Your task to perform on an android device: Add jbl charge 4 to the cart on costco Image 0: 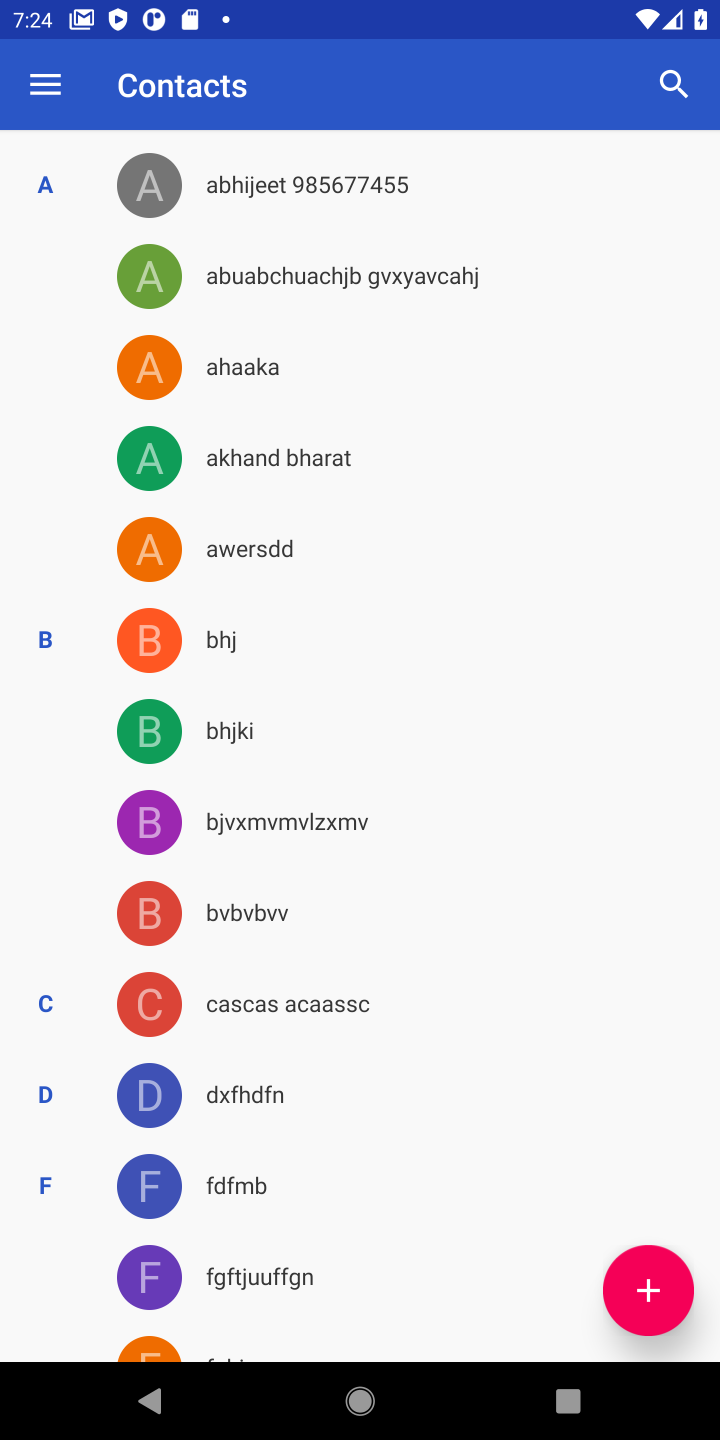
Step 0: press home button
Your task to perform on an android device: Add jbl charge 4 to the cart on costco Image 1: 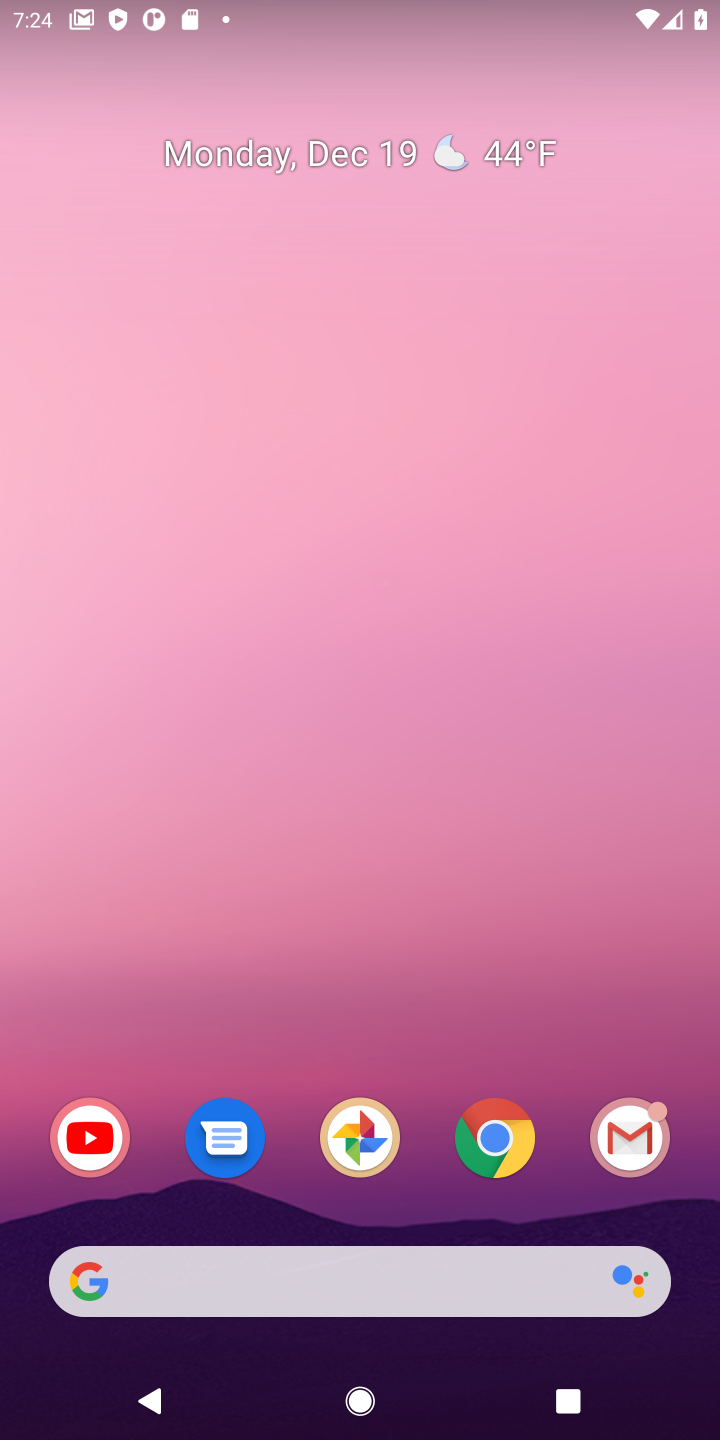
Step 1: click (507, 1142)
Your task to perform on an android device: Add jbl charge 4 to the cart on costco Image 2: 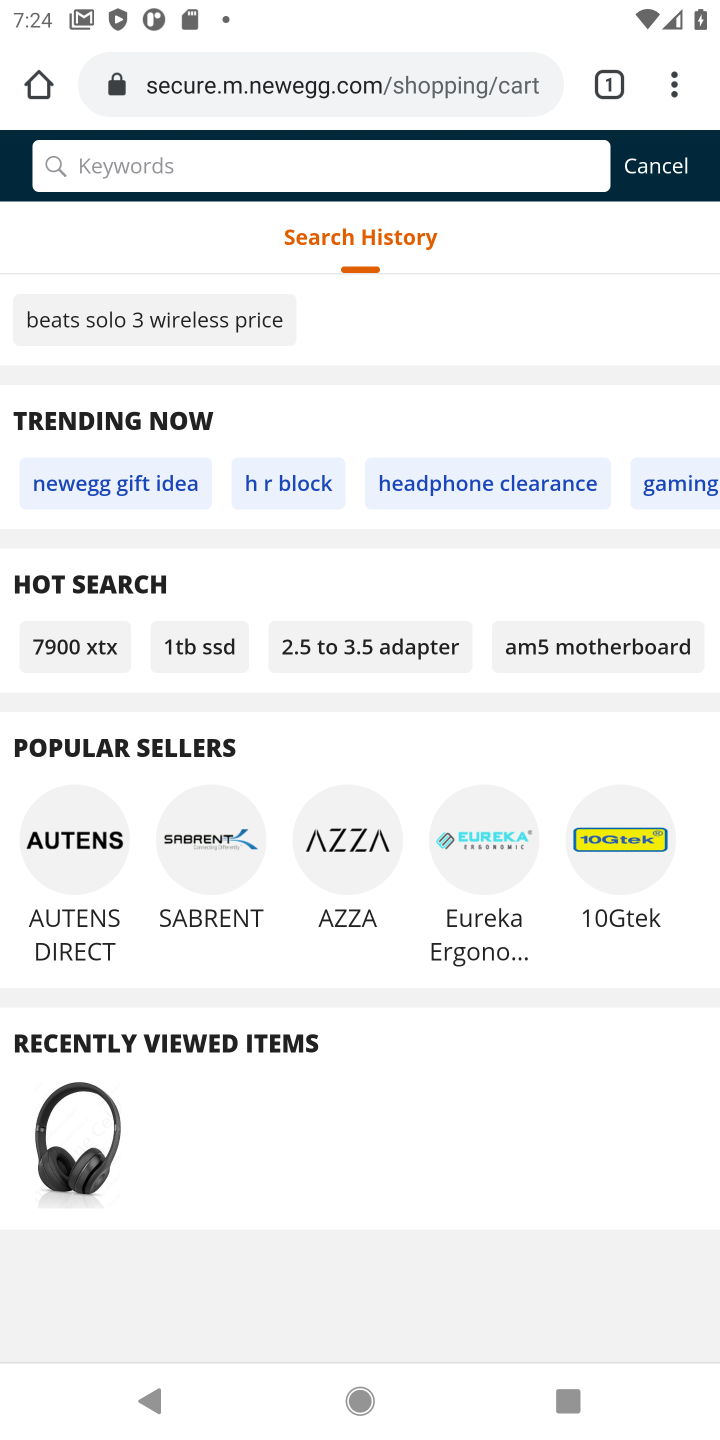
Step 2: click (353, 90)
Your task to perform on an android device: Add jbl charge 4 to the cart on costco Image 3: 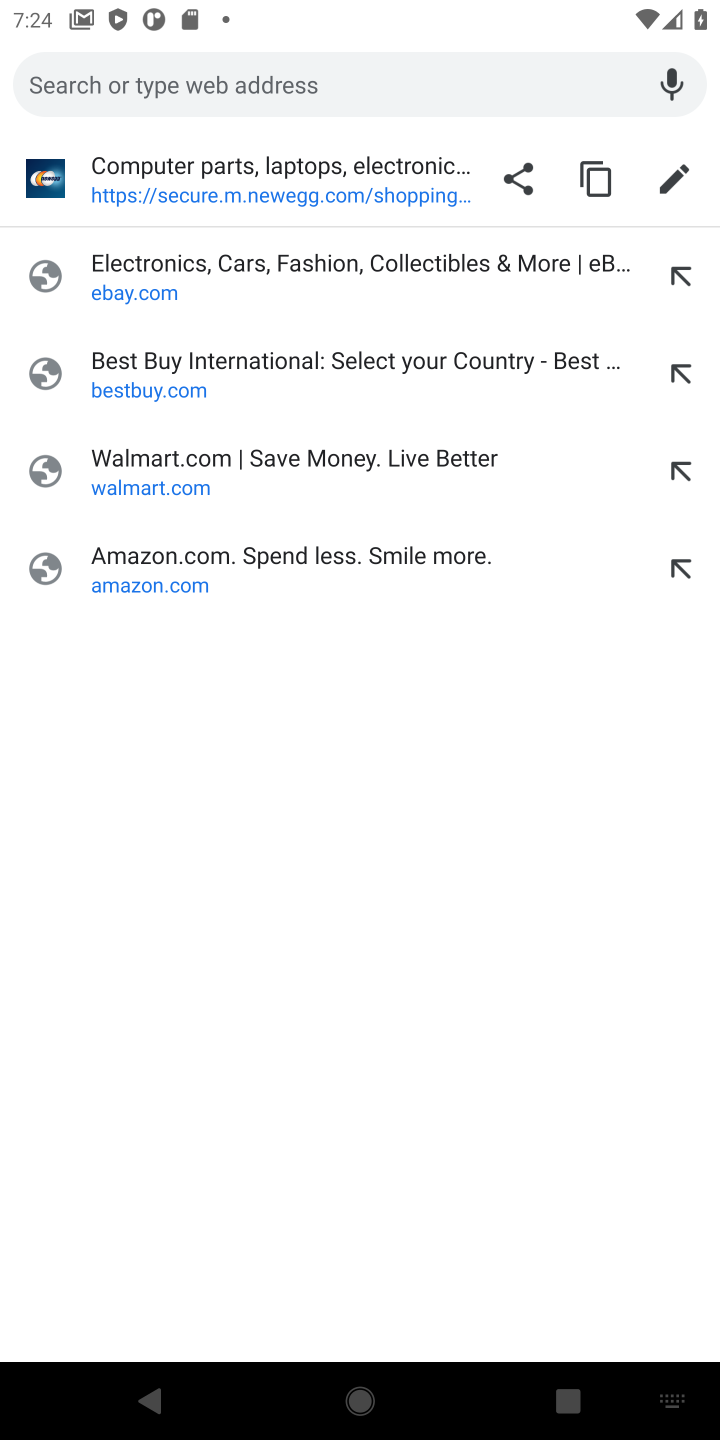
Step 3: type "COSTCO"
Your task to perform on an android device: Add jbl charge 4 to the cart on costco Image 4: 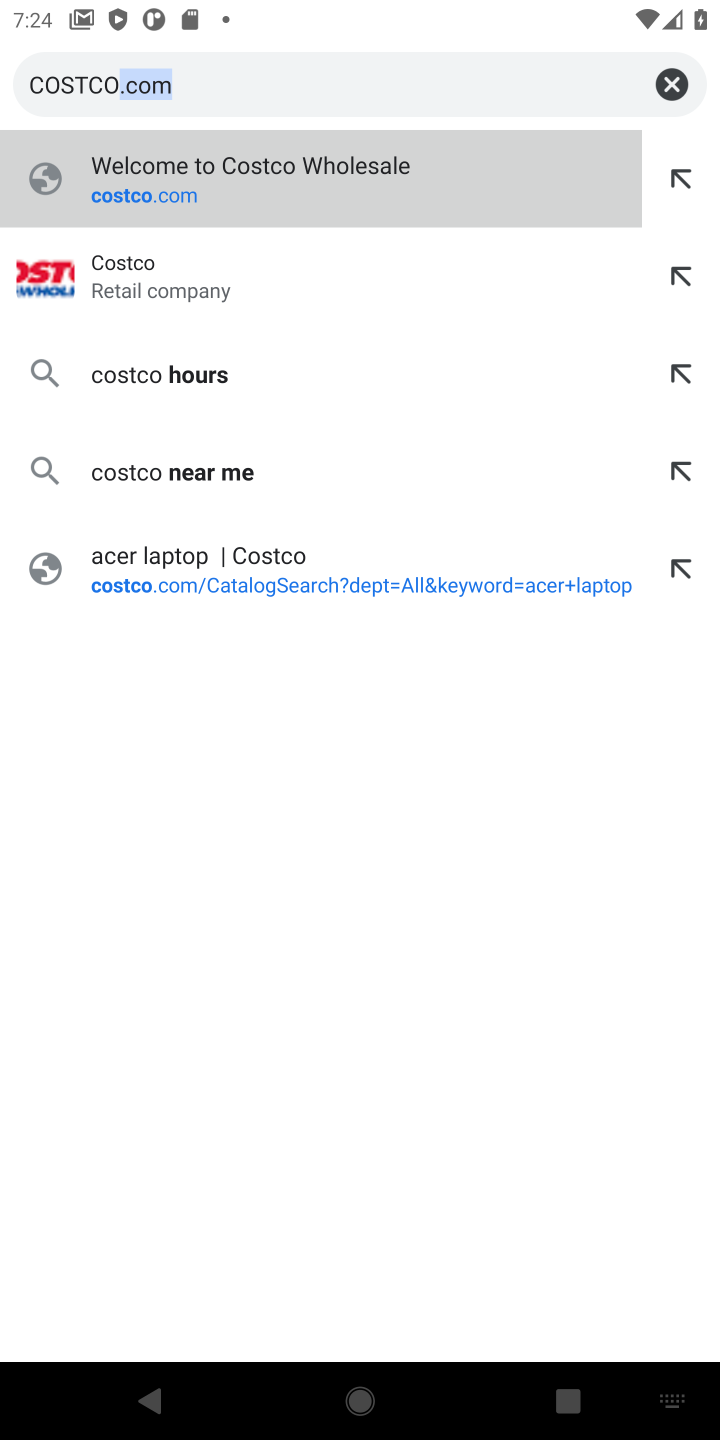
Step 4: click (287, 180)
Your task to perform on an android device: Add jbl charge 4 to the cart on costco Image 5: 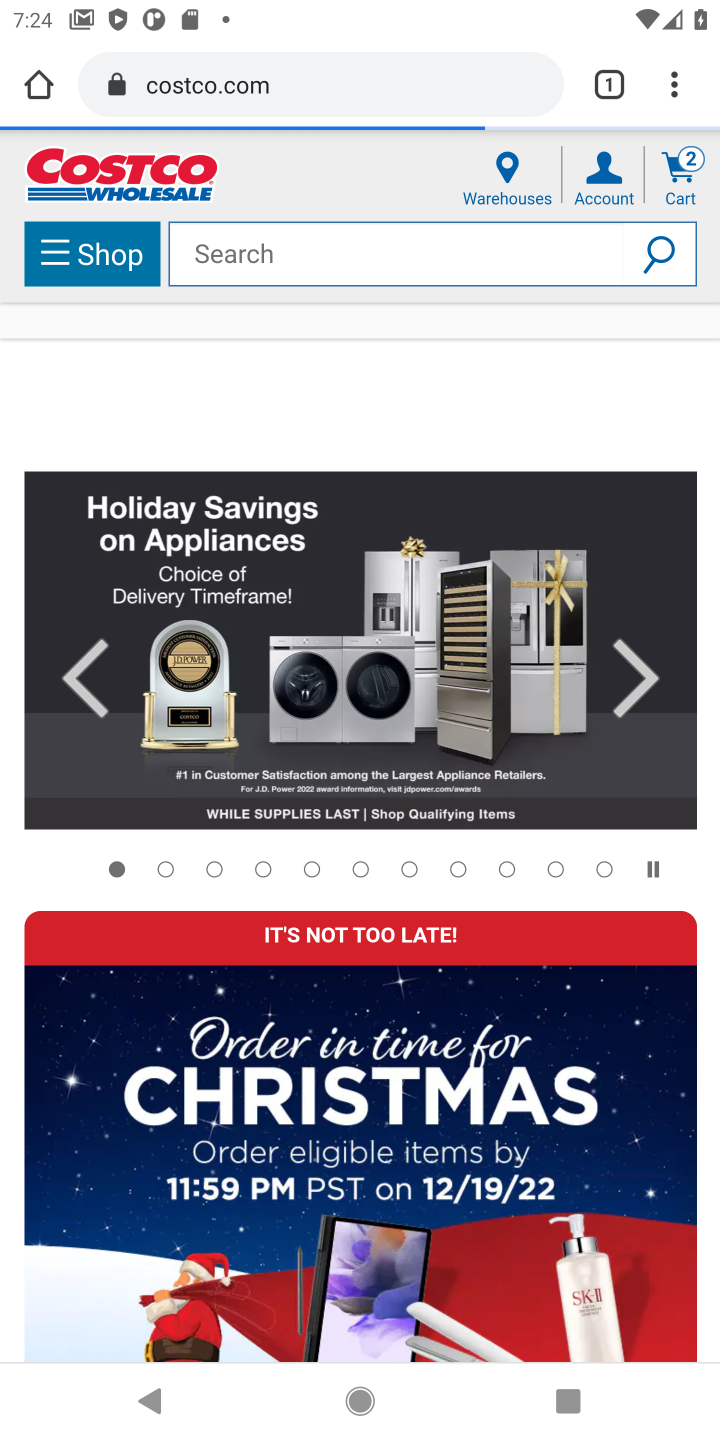
Step 5: click (533, 247)
Your task to perform on an android device: Add jbl charge 4 to the cart on costco Image 6: 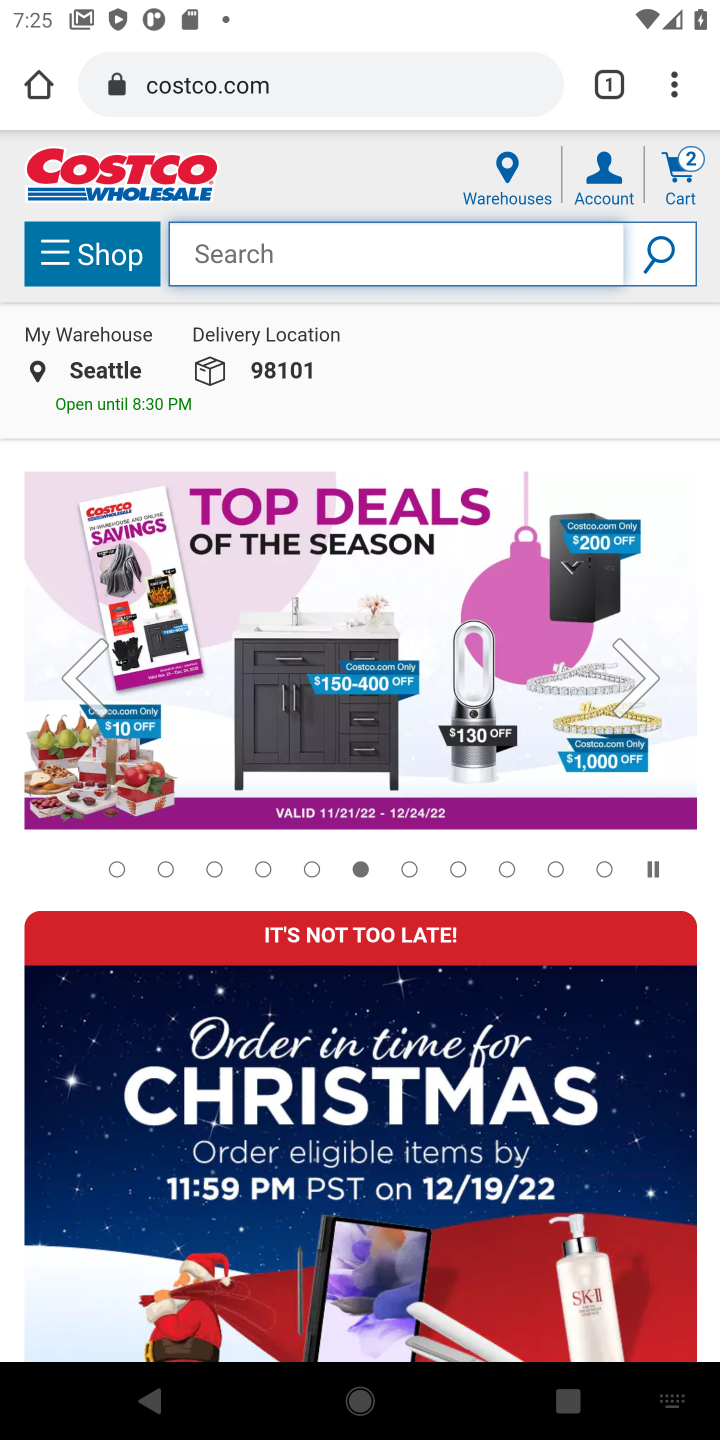
Step 6: type "JBL CHARGE 4"
Your task to perform on an android device: Add jbl charge 4 to the cart on costco Image 7: 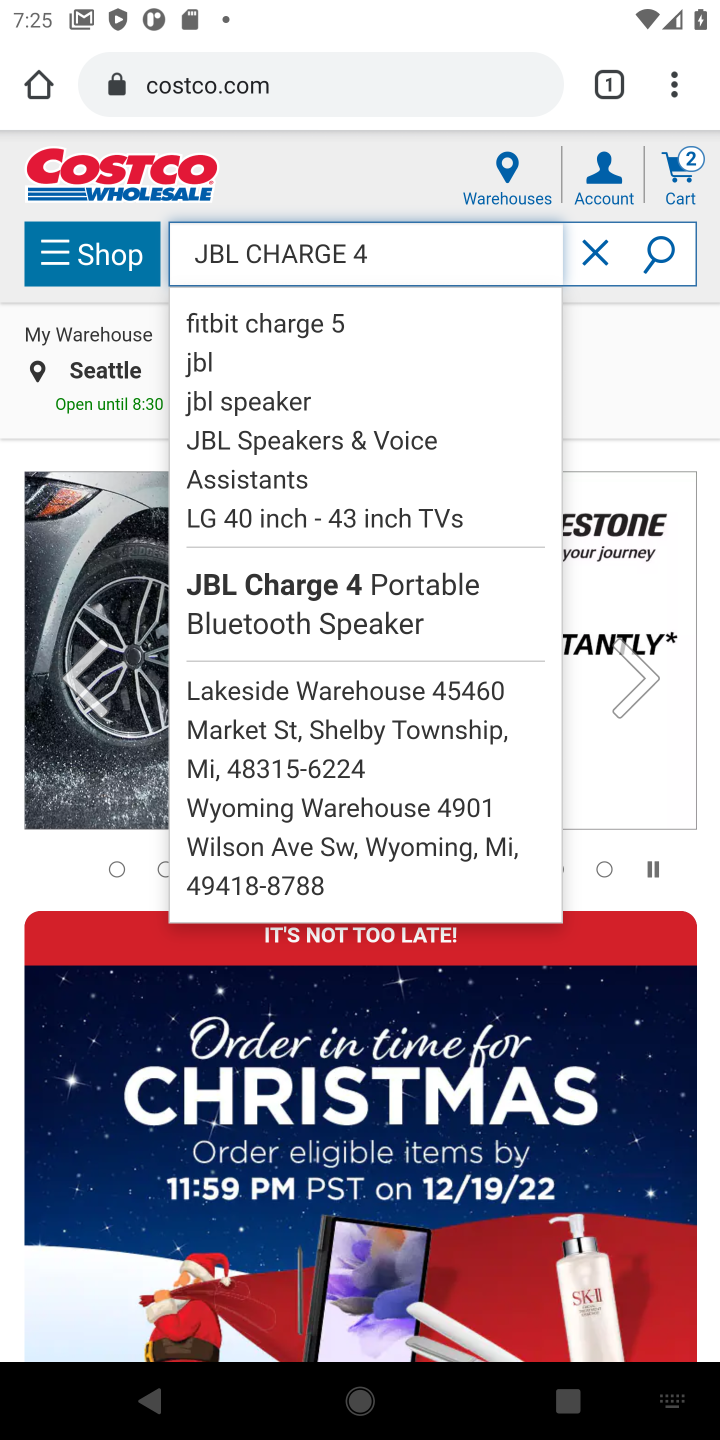
Step 7: click (668, 251)
Your task to perform on an android device: Add jbl charge 4 to the cart on costco Image 8: 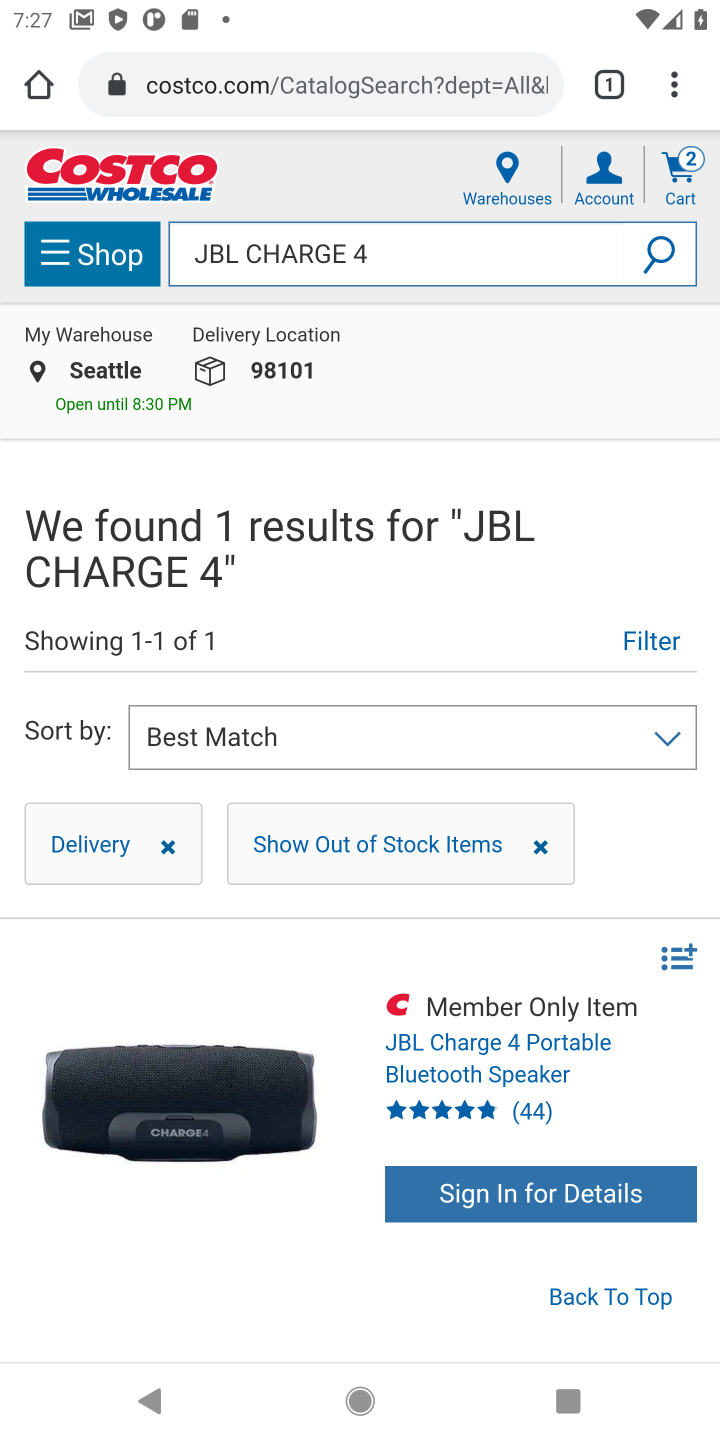
Step 8: task complete